Your task to perform on an android device: Go to display settings Image 0: 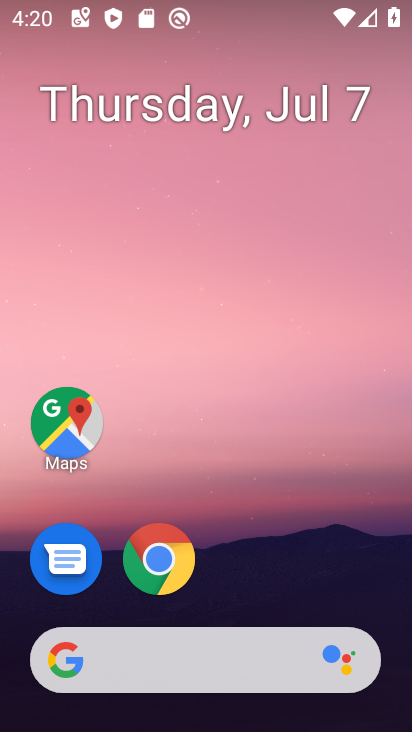
Step 0: drag from (254, 554) to (289, 36)
Your task to perform on an android device: Go to display settings Image 1: 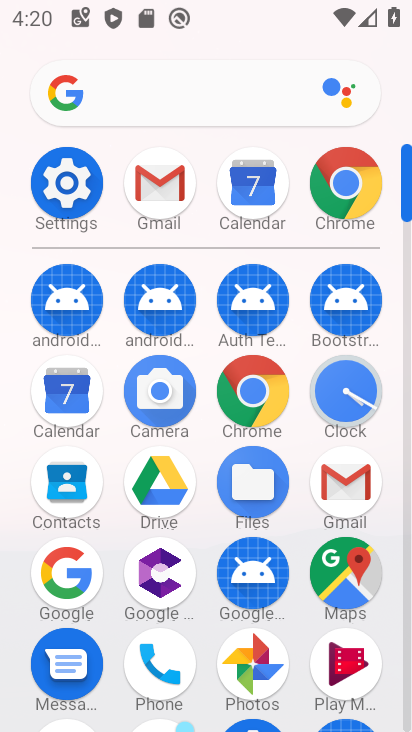
Step 1: click (90, 181)
Your task to perform on an android device: Go to display settings Image 2: 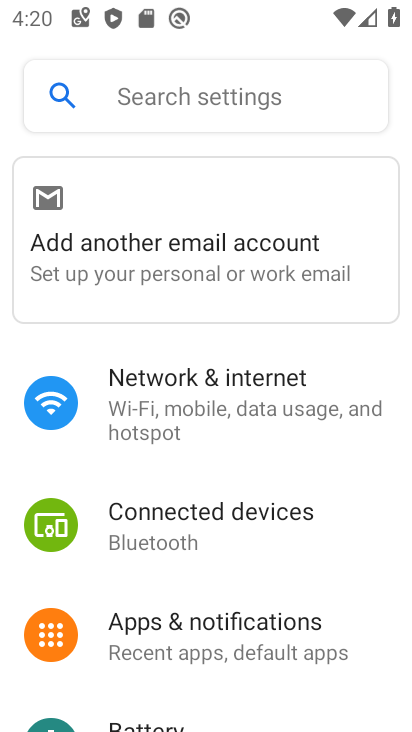
Step 2: drag from (189, 692) to (283, 277)
Your task to perform on an android device: Go to display settings Image 3: 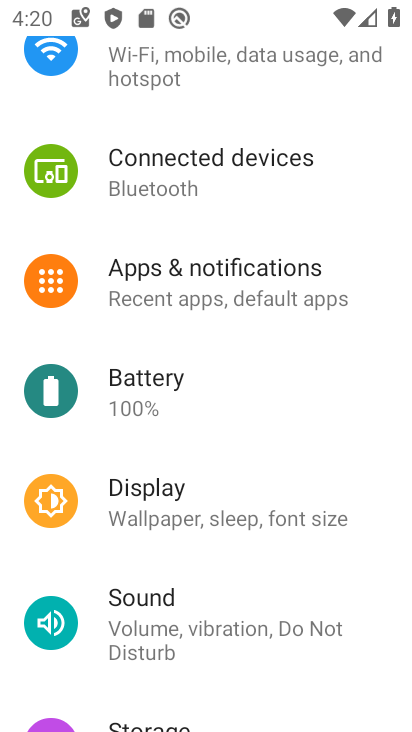
Step 3: click (191, 511)
Your task to perform on an android device: Go to display settings Image 4: 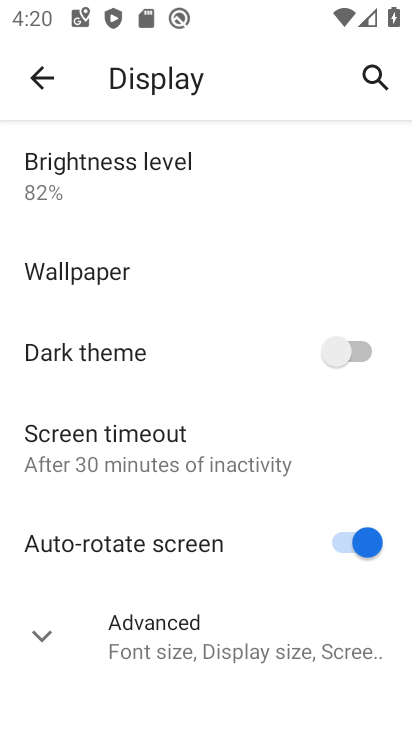
Step 4: task complete